Your task to perform on an android device: Open the calendar app, open the side menu, and click the "Day" option Image 0: 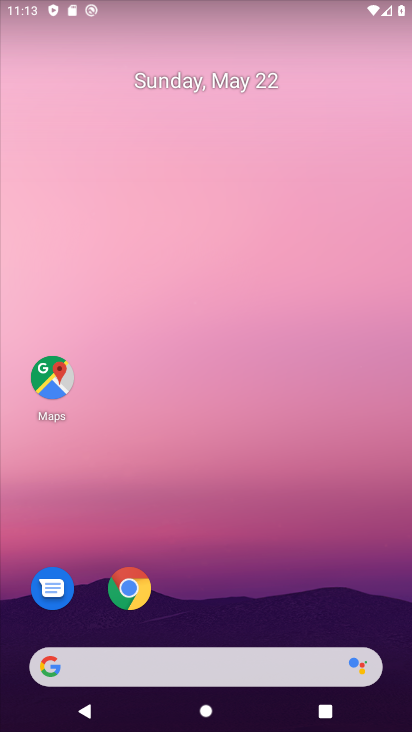
Step 0: drag from (221, 625) to (162, 33)
Your task to perform on an android device: Open the calendar app, open the side menu, and click the "Day" option Image 1: 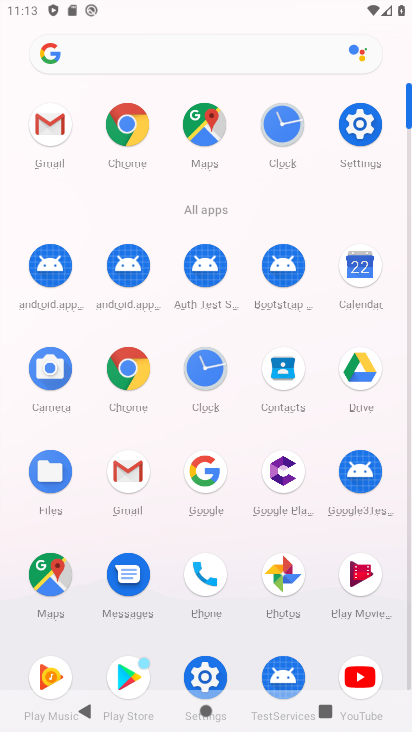
Step 1: click (354, 268)
Your task to perform on an android device: Open the calendar app, open the side menu, and click the "Day" option Image 2: 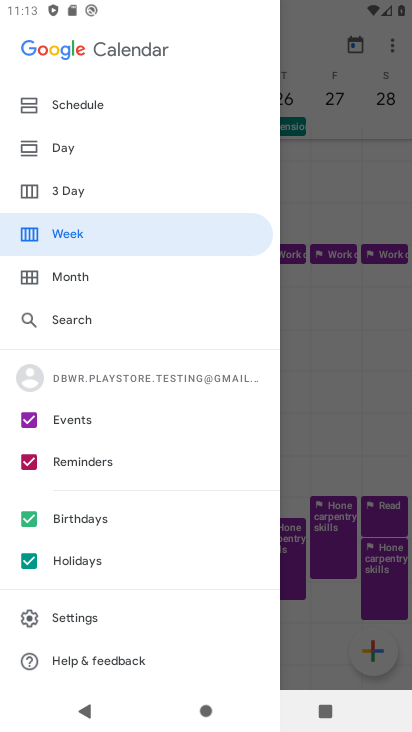
Step 2: click (70, 148)
Your task to perform on an android device: Open the calendar app, open the side menu, and click the "Day" option Image 3: 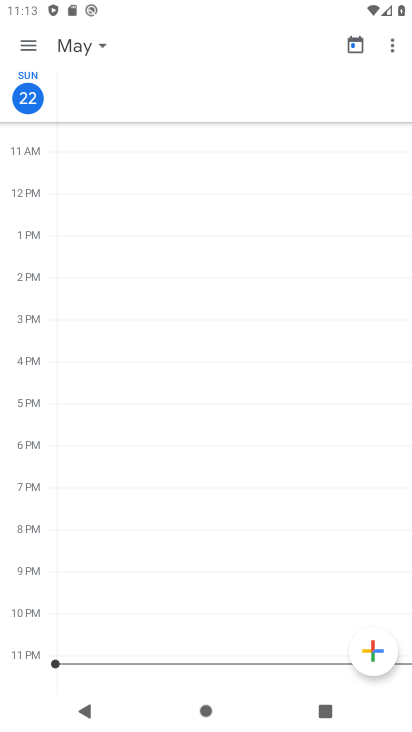
Step 3: task complete